Your task to perform on an android device: Go to Reddit.com Image 0: 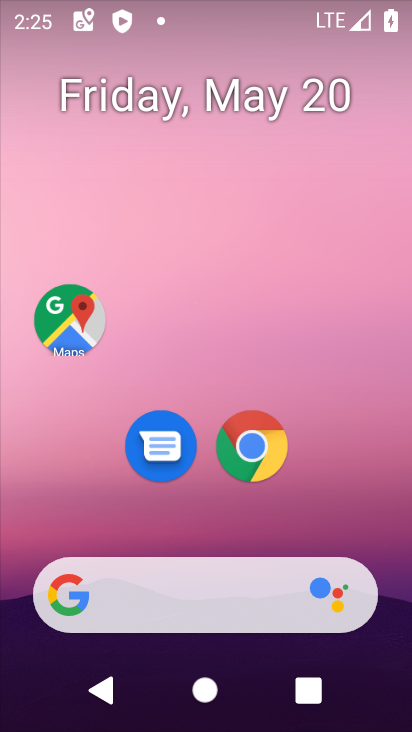
Step 0: click (258, 452)
Your task to perform on an android device: Go to Reddit.com Image 1: 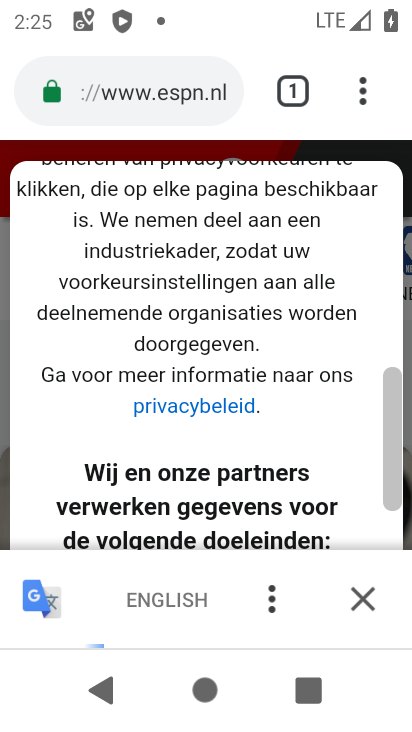
Step 1: click (125, 95)
Your task to perform on an android device: Go to Reddit.com Image 2: 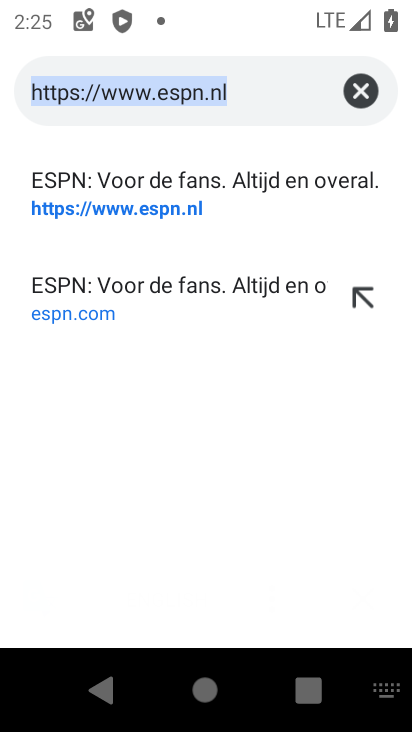
Step 2: click (375, 88)
Your task to perform on an android device: Go to Reddit.com Image 3: 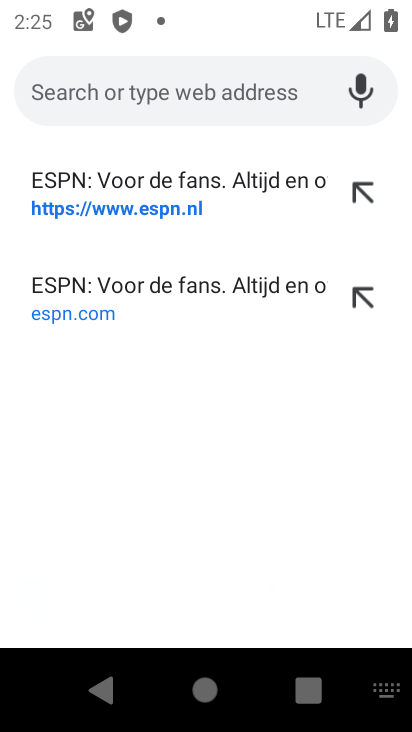
Step 3: click (104, 96)
Your task to perform on an android device: Go to Reddit.com Image 4: 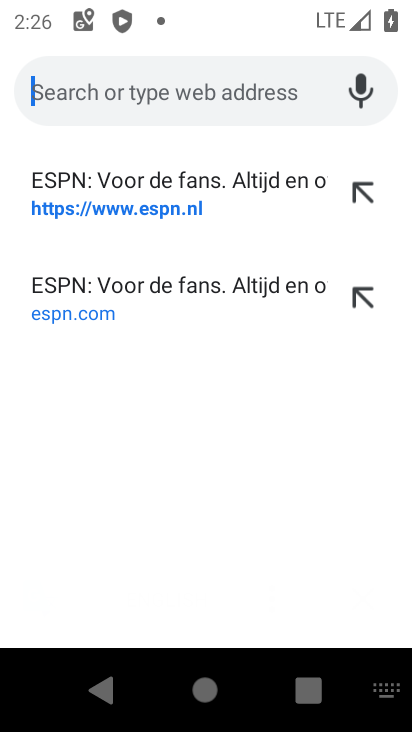
Step 4: type "reddit.com"
Your task to perform on an android device: Go to Reddit.com Image 5: 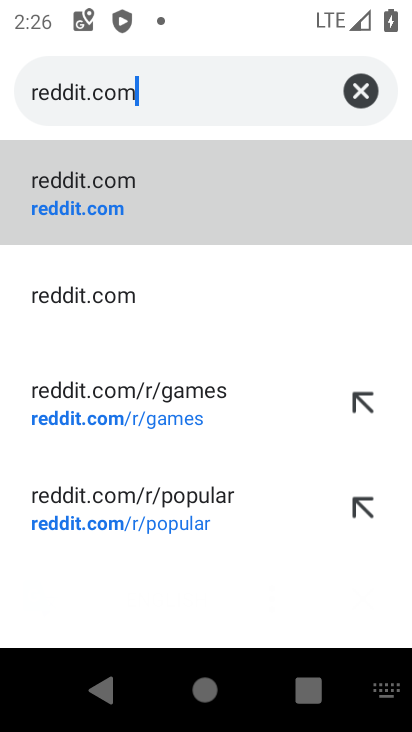
Step 5: click (80, 185)
Your task to perform on an android device: Go to Reddit.com Image 6: 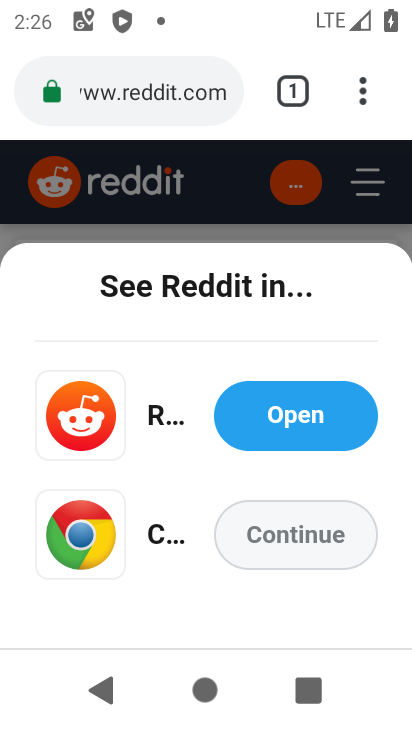
Step 6: task complete